Your task to perform on an android device: check out phone information Image 0: 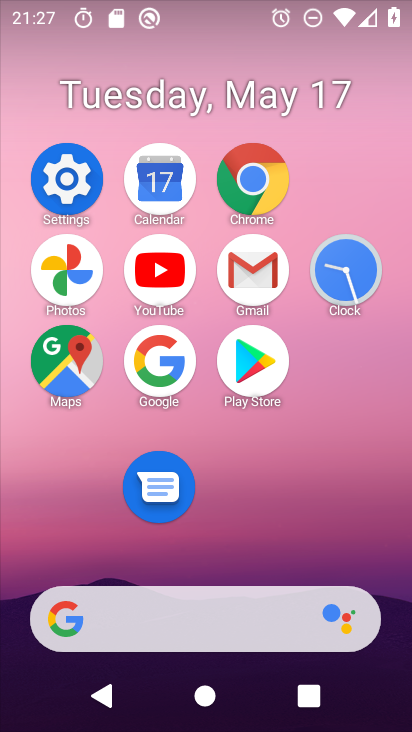
Step 0: click (69, 183)
Your task to perform on an android device: check out phone information Image 1: 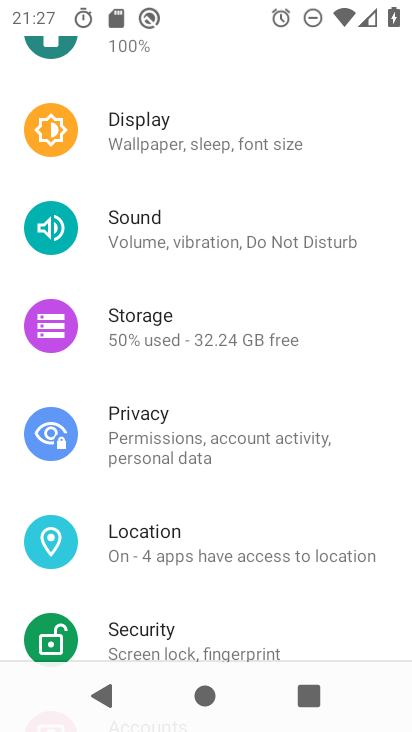
Step 1: drag from (234, 584) to (226, 106)
Your task to perform on an android device: check out phone information Image 2: 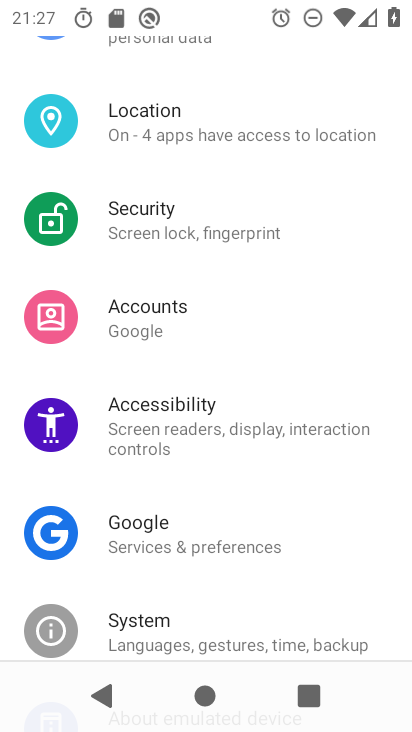
Step 2: drag from (227, 613) to (264, 216)
Your task to perform on an android device: check out phone information Image 3: 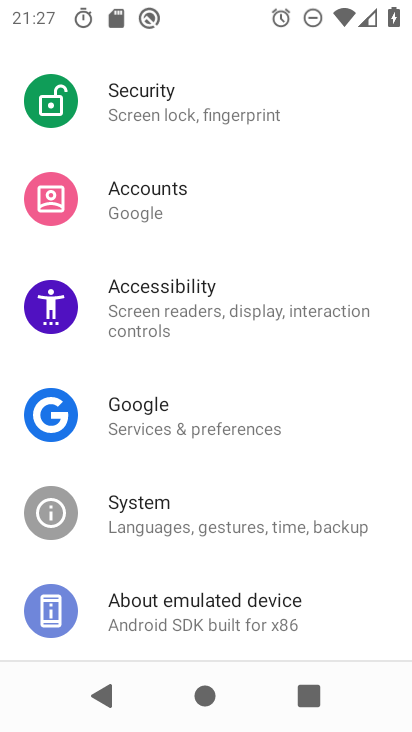
Step 3: click (206, 595)
Your task to perform on an android device: check out phone information Image 4: 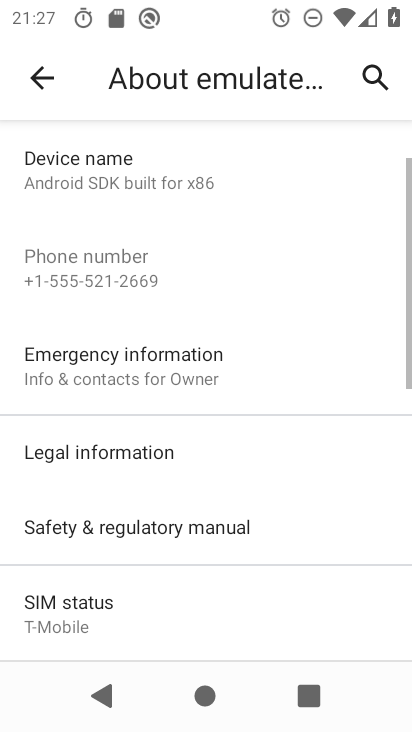
Step 4: drag from (204, 599) to (249, 220)
Your task to perform on an android device: check out phone information Image 5: 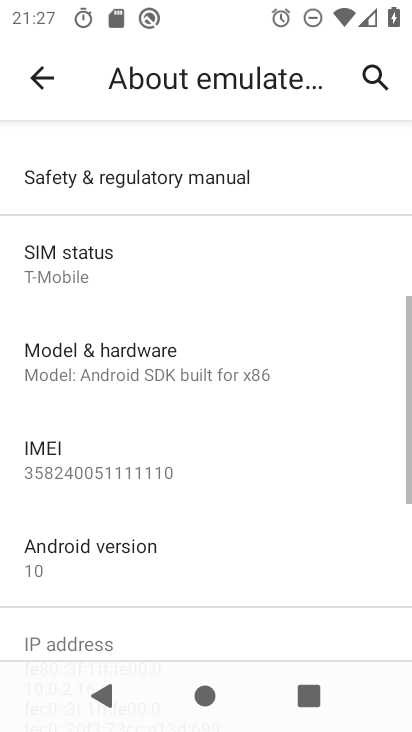
Step 5: click (214, 379)
Your task to perform on an android device: check out phone information Image 6: 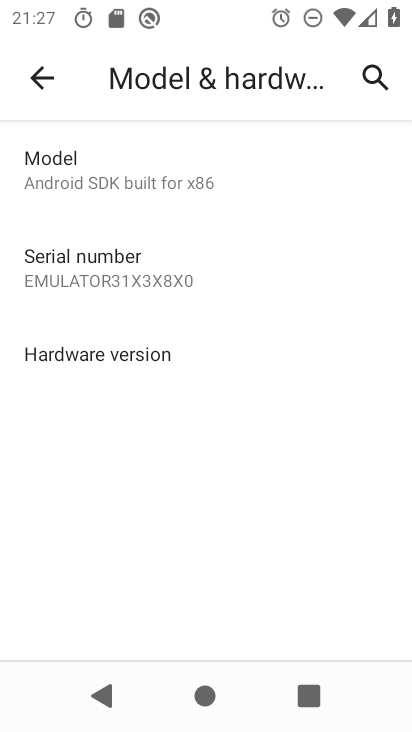
Step 6: task complete